Your task to perform on an android device: When is my next appointment? Image 0: 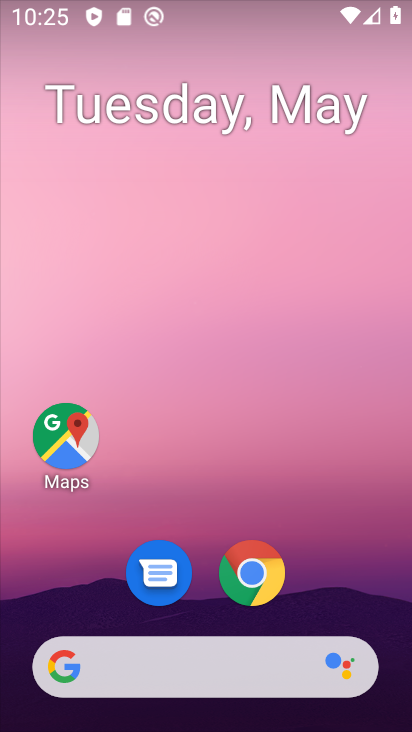
Step 0: drag from (345, 501) to (295, 2)
Your task to perform on an android device: When is my next appointment? Image 1: 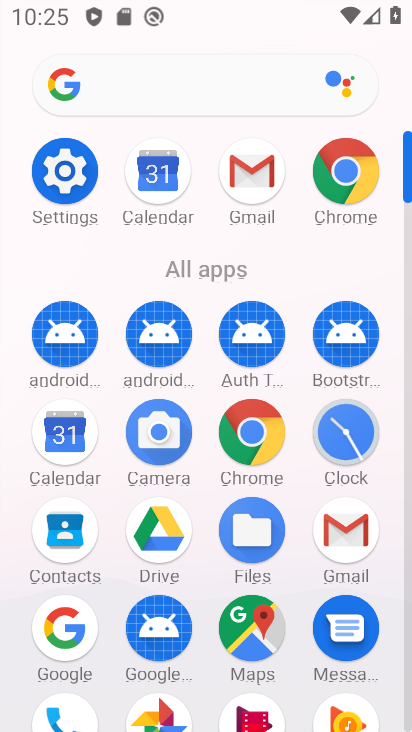
Step 1: click (63, 423)
Your task to perform on an android device: When is my next appointment? Image 2: 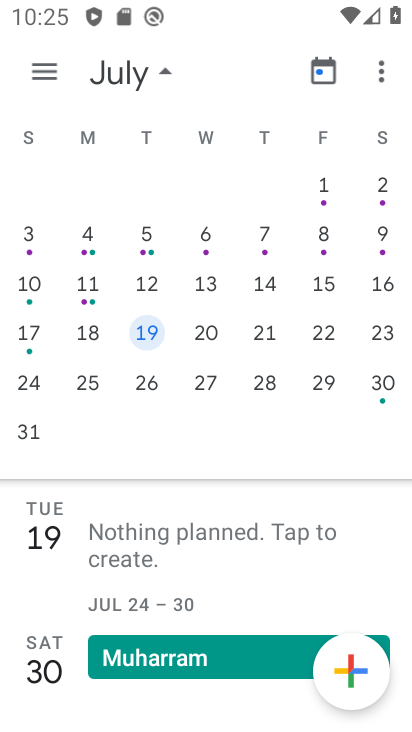
Step 2: click (324, 178)
Your task to perform on an android device: When is my next appointment? Image 3: 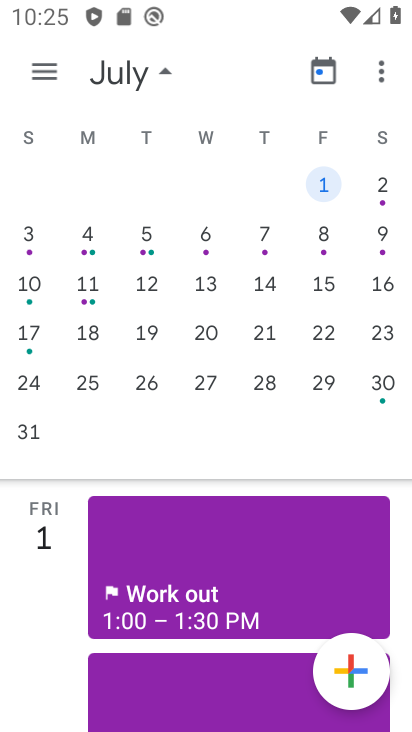
Step 3: task complete